Your task to perform on an android device: open app "Facebook" Image 0: 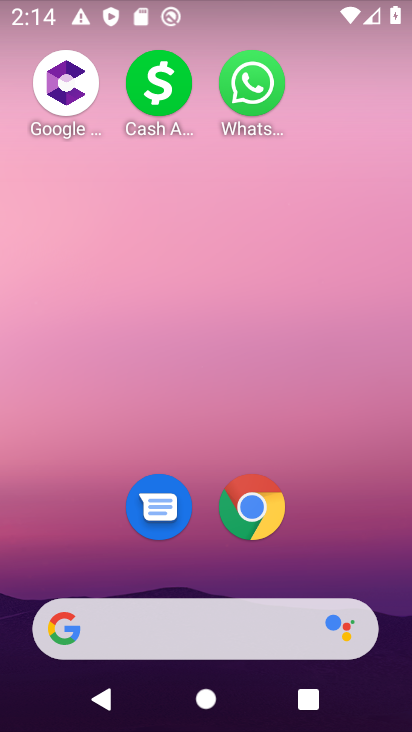
Step 0: drag from (186, 463) to (239, 5)
Your task to perform on an android device: open app "Facebook" Image 1: 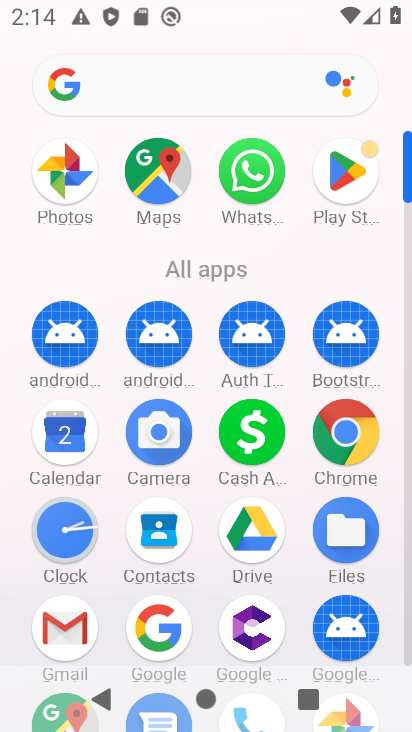
Step 1: click (341, 170)
Your task to perform on an android device: open app "Facebook" Image 2: 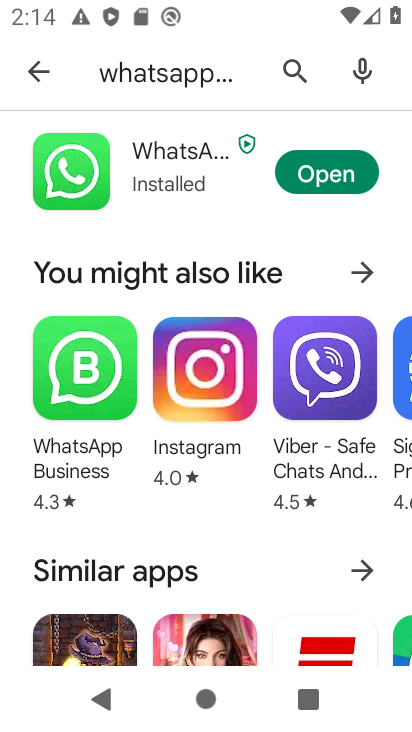
Step 2: click (140, 65)
Your task to perform on an android device: open app "Facebook" Image 3: 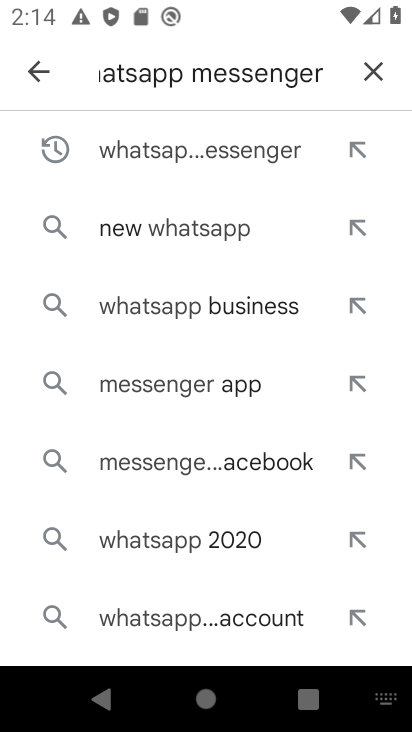
Step 3: click (381, 63)
Your task to perform on an android device: open app "Facebook" Image 4: 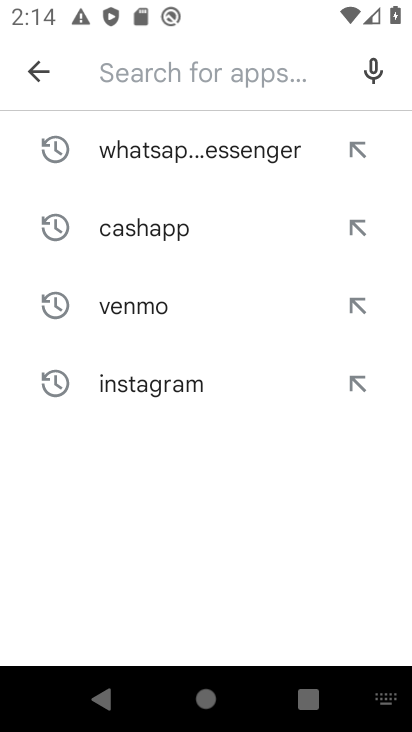
Step 4: type "facebook"
Your task to perform on an android device: open app "Facebook" Image 5: 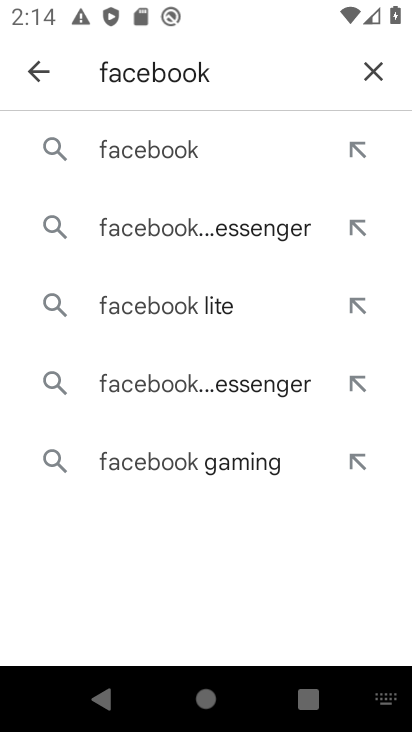
Step 5: click (158, 135)
Your task to perform on an android device: open app "Facebook" Image 6: 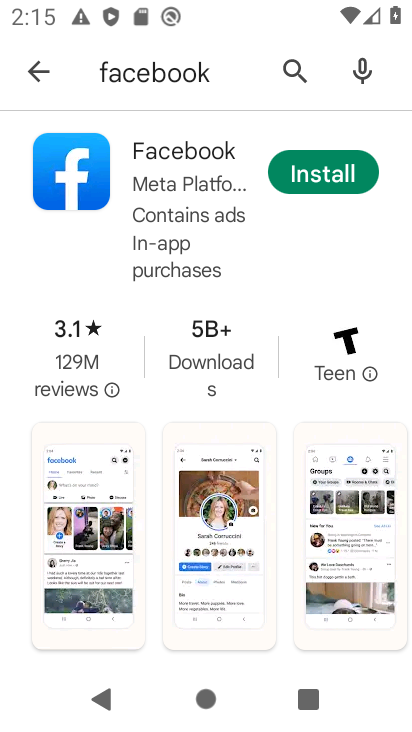
Step 6: task complete